Your task to perform on an android device: Check the news Image 0: 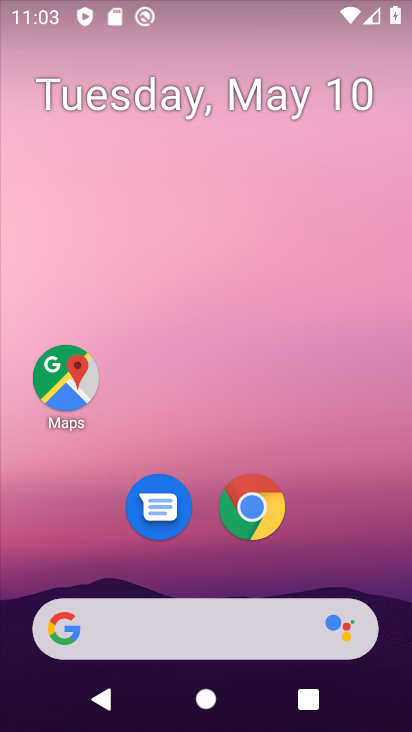
Step 0: drag from (189, 561) to (213, 31)
Your task to perform on an android device: Check the news Image 1: 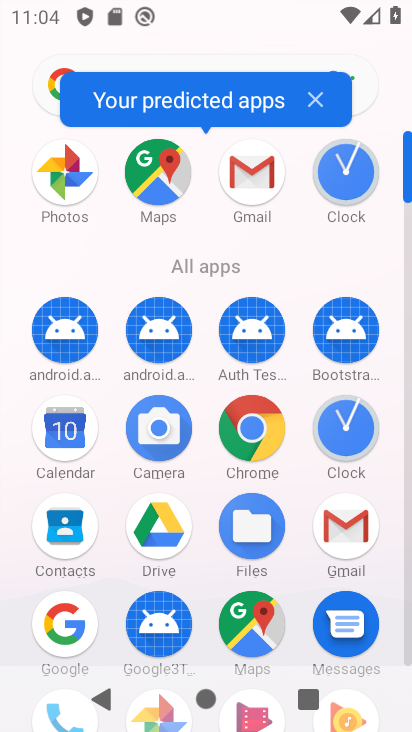
Step 1: click (56, 637)
Your task to perform on an android device: Check the news Image 2: 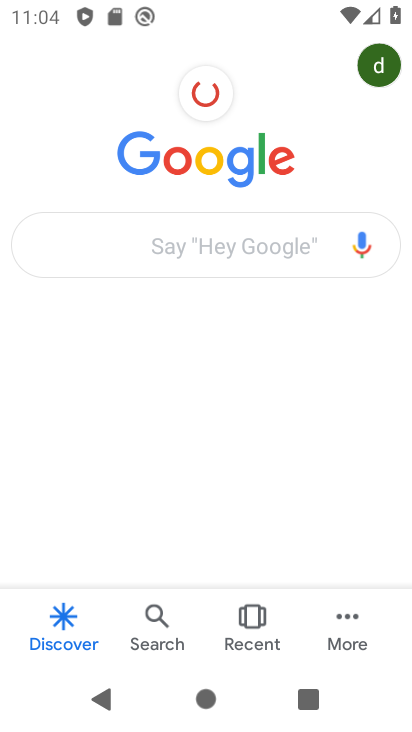
Step 2: click (206, 252)
Your task to perform on an android device: Check the news Image 3: 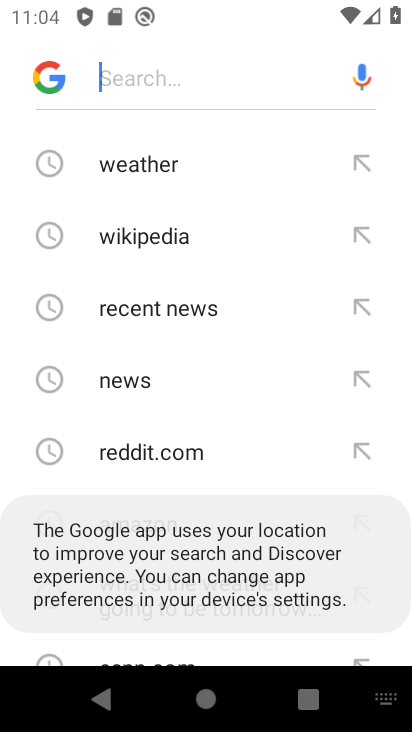
Step 3: click (117, 378)
Your task to perform on an android device: Check the news Image 4: 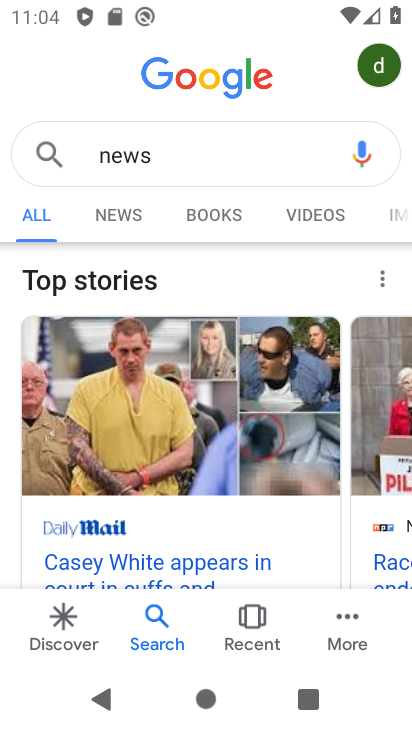
Step 4: task complete